Your task to perform on an android device: Do I have any events today? Image 0: 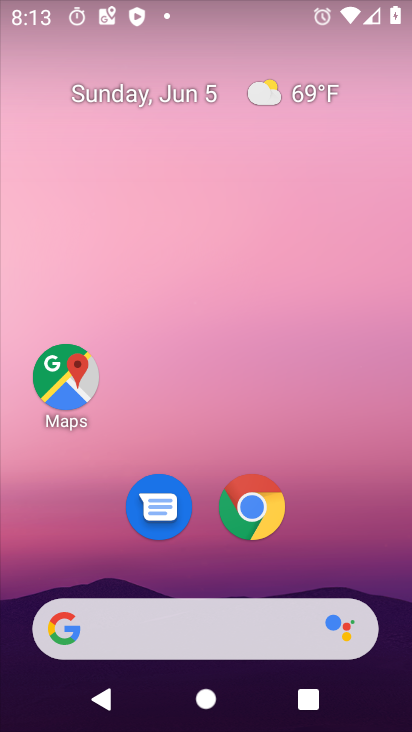
Step 0: drag from (372, 544) to (266, 44)
Your task to perform on an android device: Do I have any events today? Image 1: 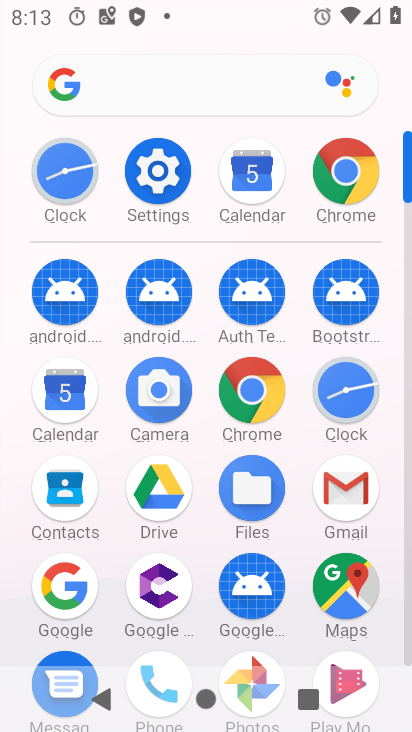
Step 1: drag from (14, 513) to (4, 220)
Your task to perform on an android device: Do I have any events today? Image 2: 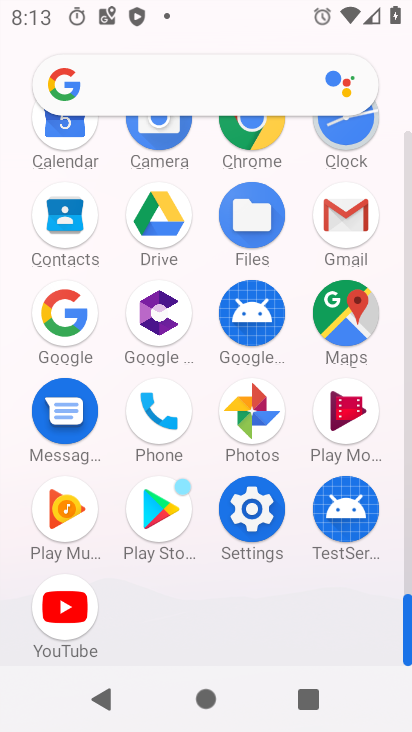
Step 2: drag from (12, 258) to (29, 463)
Your task to perform on an android device: Do I have any events today? Image 3: 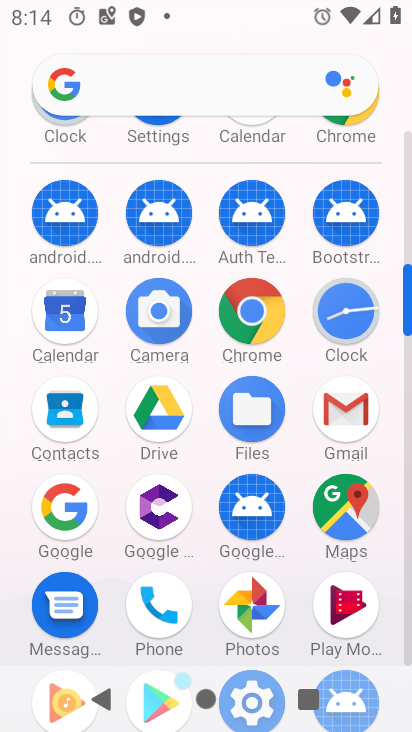
Step 3: drag from (16, 543) to (11, 262)
Your task to perform on an android device: Do I have any events today? Image 4: 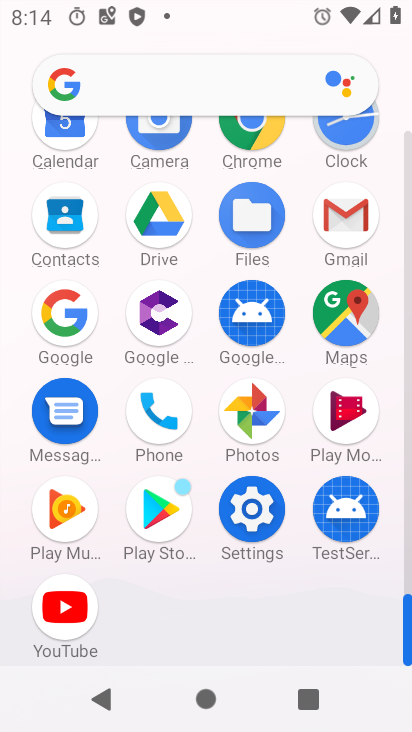
Step 4: drag from (34, 200) to (12, 428)
Your task to perform on an android device: Do I have any events today? Image 5: 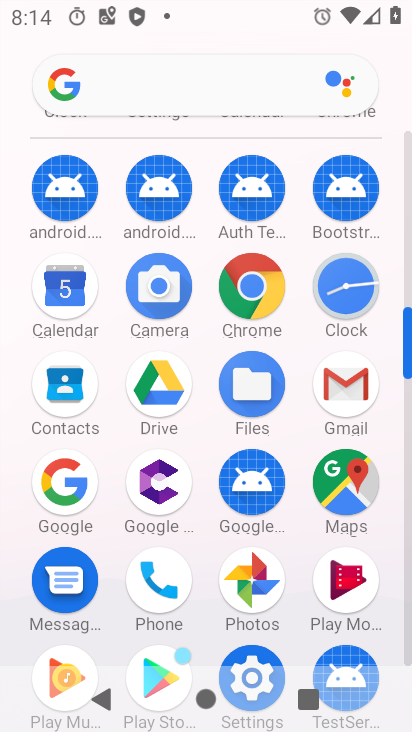
Step 5: click (63, 284)
Your task to perform on an android device: Do I have any events today? Image 6: 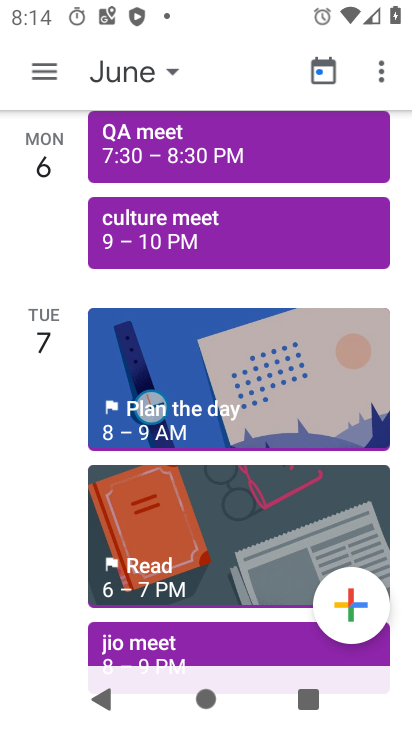
Step 6: click (325, 71)
Your task to perform on an android device: Do I have any events today? Image 7: 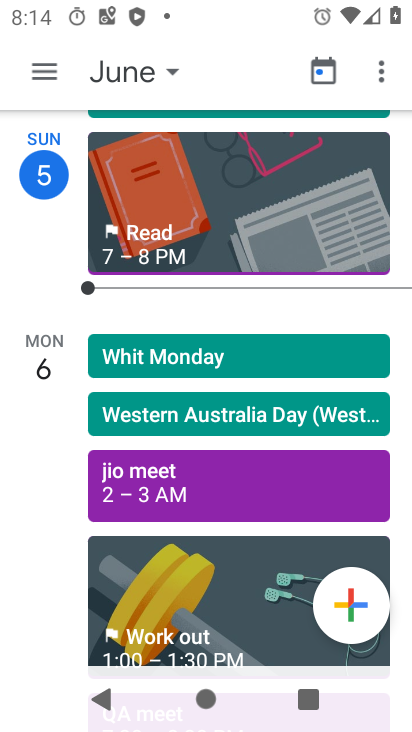
Step 7: click (48, 159)
Your task to perform on an android device: Do I have any events today? Image 8: 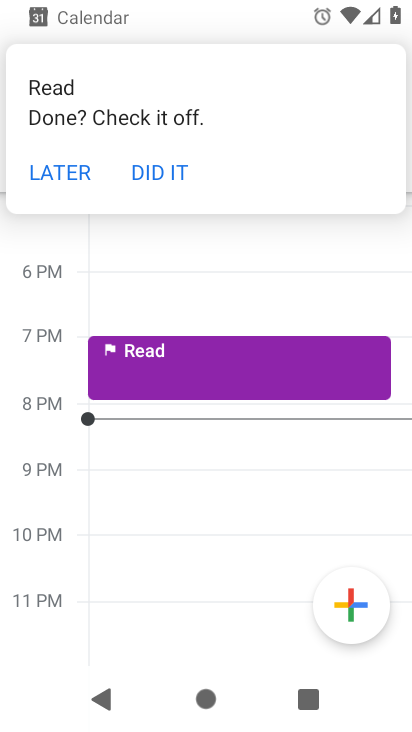
Step 8: click (56, 169)
Your task to perform on an android device: Do I have any events today? Image 9: 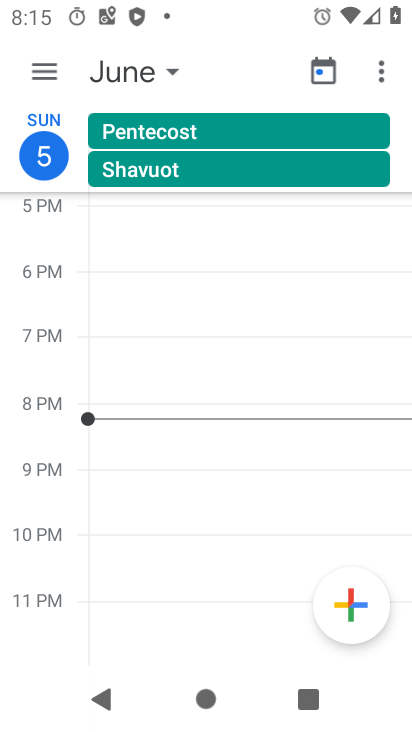
Step 9: task complete